Your task to perform on an android device: find which apps use the phone's location Image 0: 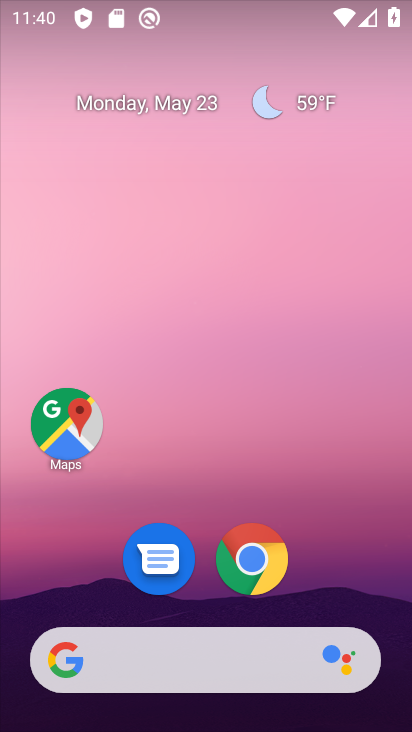
Step 0: drag from (398, 692) to (345, 69)
Your task to perform on an android device: find which apps use the phone's location Image 1: 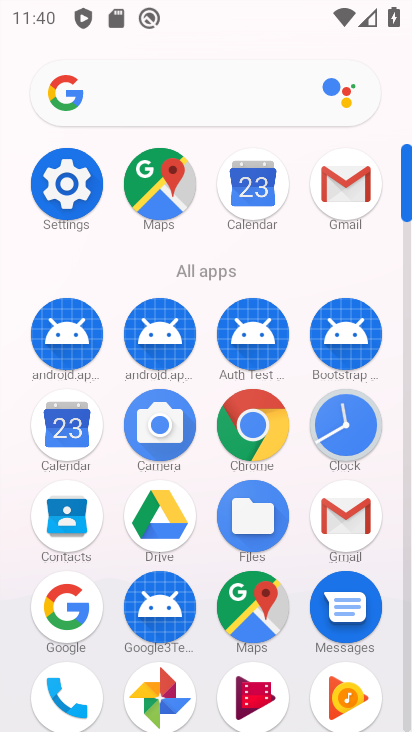
Step 1: click (83, 189)
Your task to perform on an android device: find which apps use the phone's location Image 2: 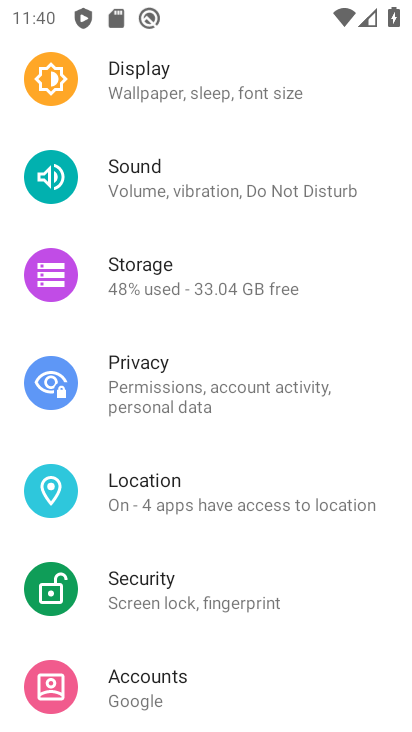
Step 2: click (128, 493)
Your task to perform on an android device: find which apps use the phone's location Image 3: 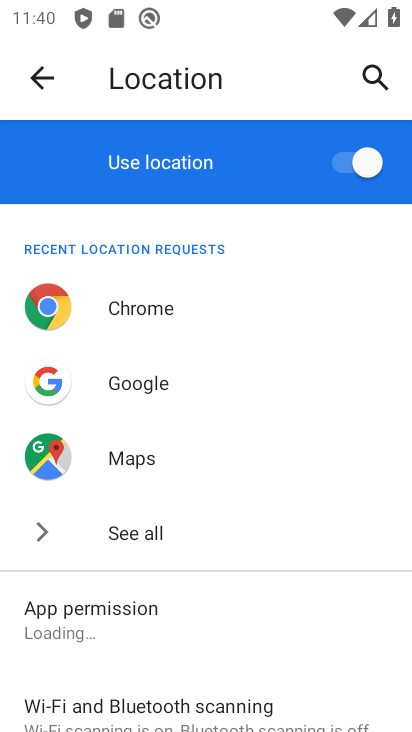
Step 3: click (70, 616)
Your task to perform on an android device: find which apps use the phone's location Image 4: 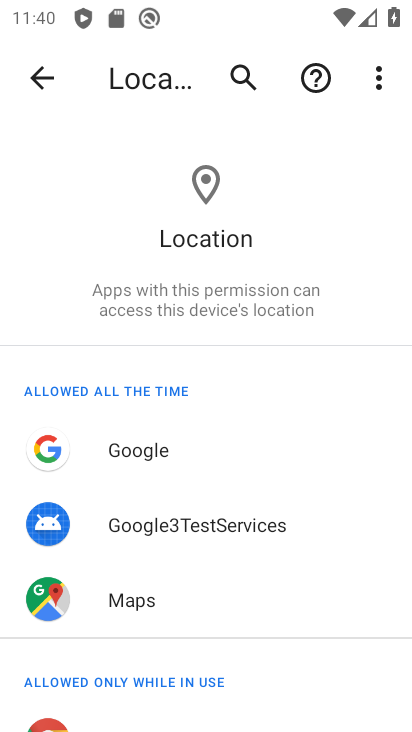
Step 4: task complete